Your task to perform on an android device: Show me recent news Image 0: 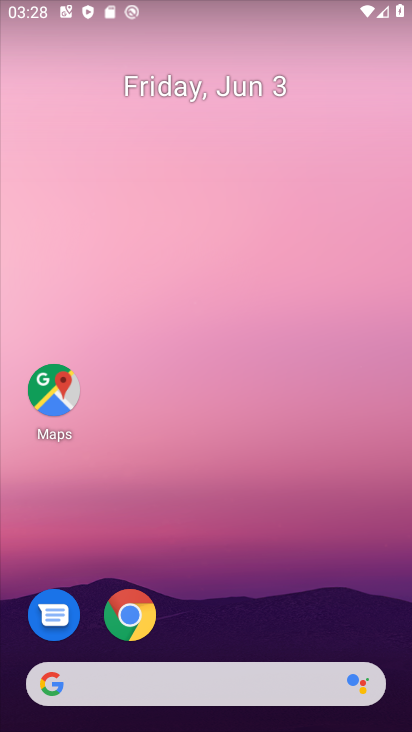
Step 0: click (244, 674)
Your task to perform on an android device: Show me recent news Image 1: 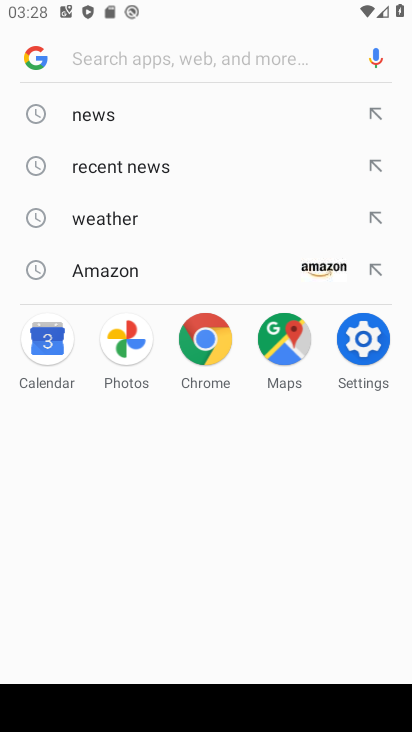
Step 1: click (170, 162)
Your task to perform on an android device: Show me recent news Image 2: 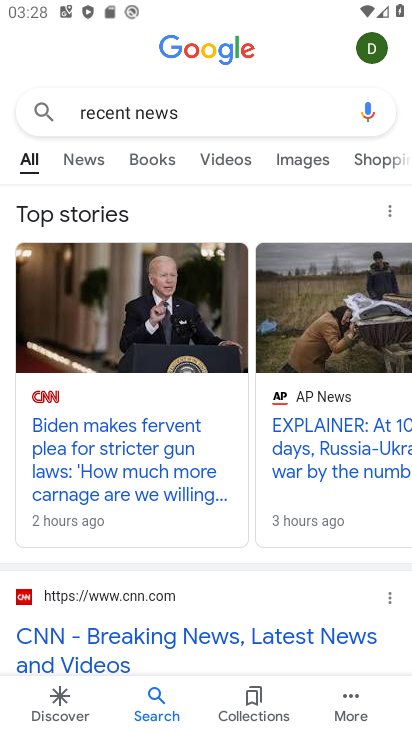
Step 2: task complete